Your task to perform on an android device: Clear the shopping cart on walmart.com. Image 0: 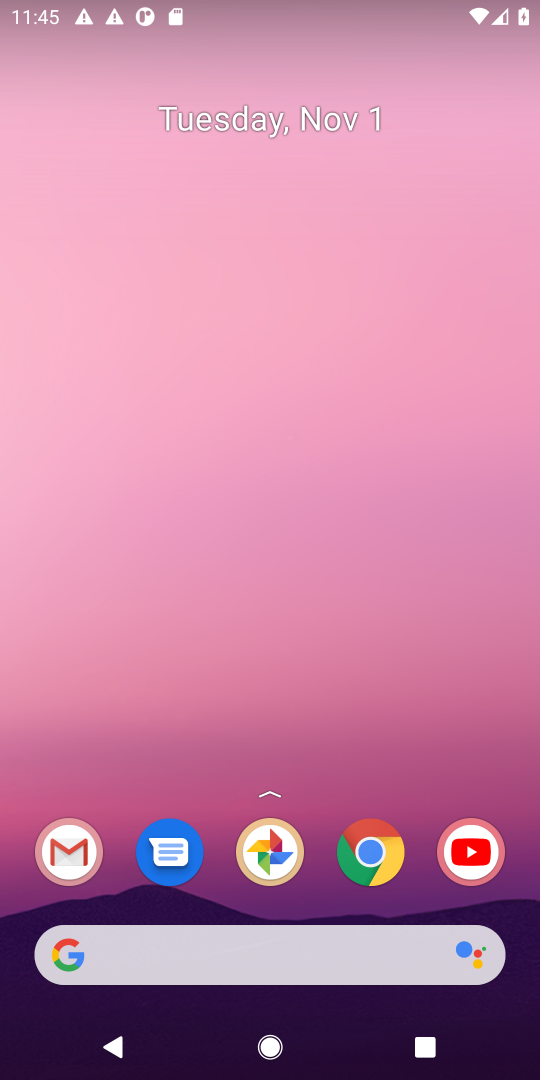
Step 0: click (60, 951)
Your task to perform on an android device: Clear the shopping cart on walmart.com. Image 1: 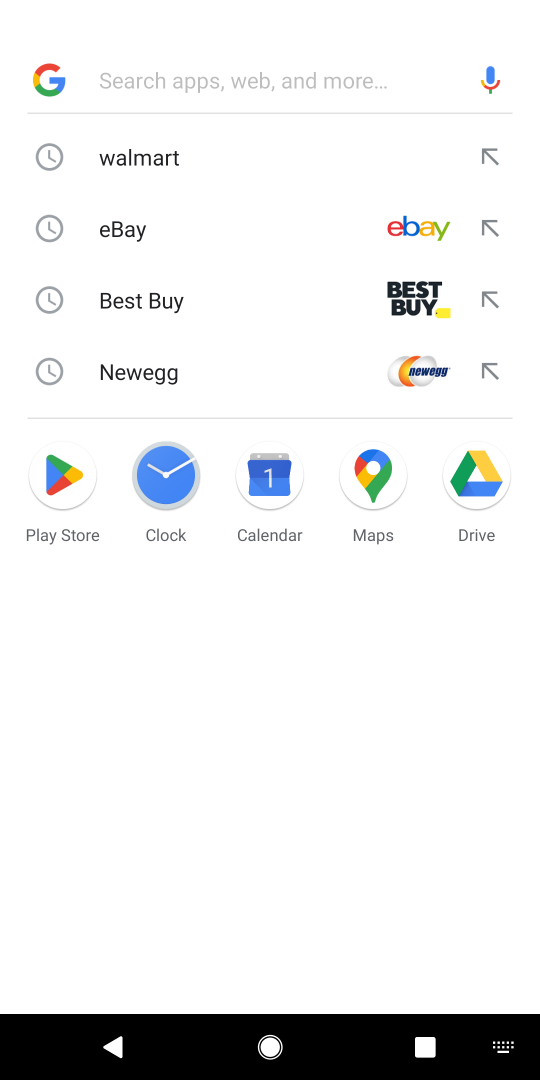
Step 1: click (148, 156)
Your task to perform on an android device: Clear the shopping cart on walmart.com. Image 2: 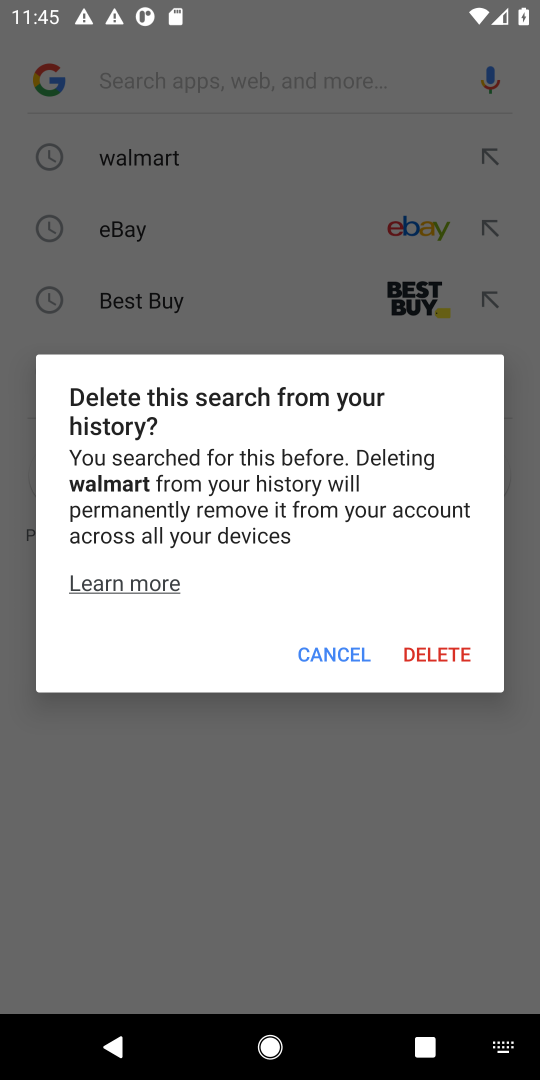
Step 2: click (314, 655)
Your task to perform on an android device: Clear the shopping cart on walmart.com. Image 3: 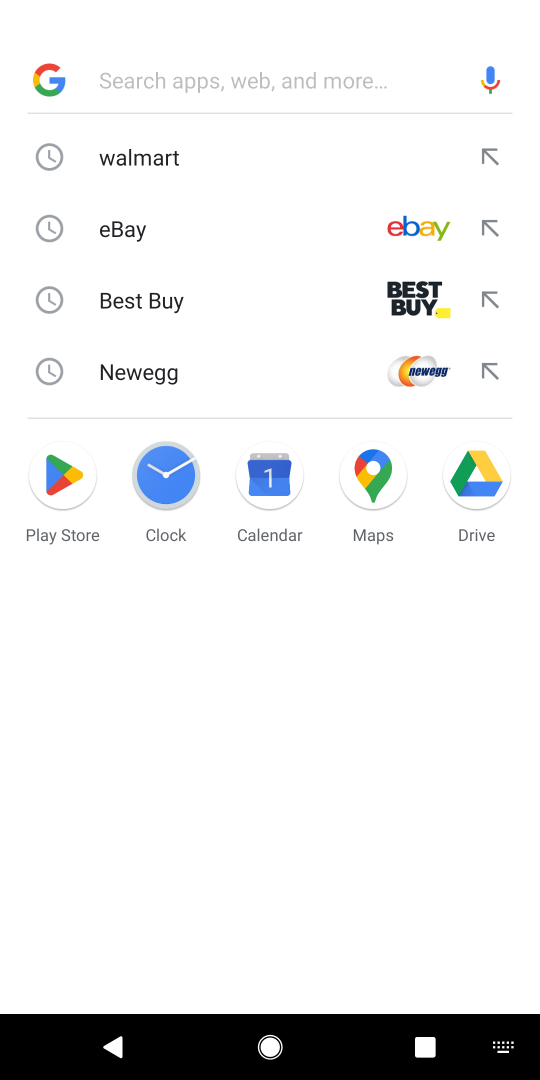
Step 3: click (143, 158)
Your task to perform on an android device: Clear the shopping cart on walmart.com. Image 4: 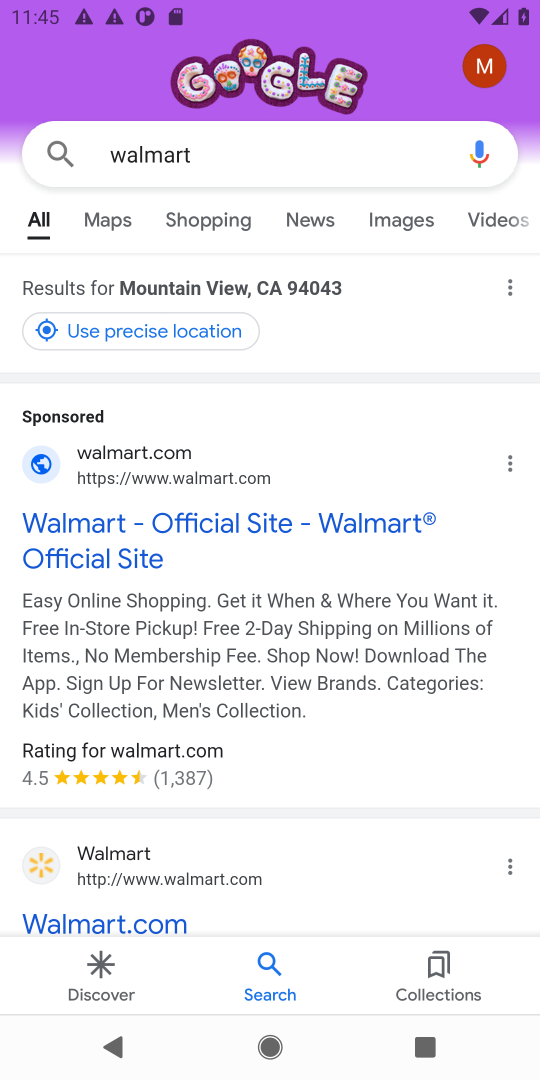
Step 4: click (136, 924)
Your task to perform on an android device: Clear the shopping cart on walmart.com. Image 5: 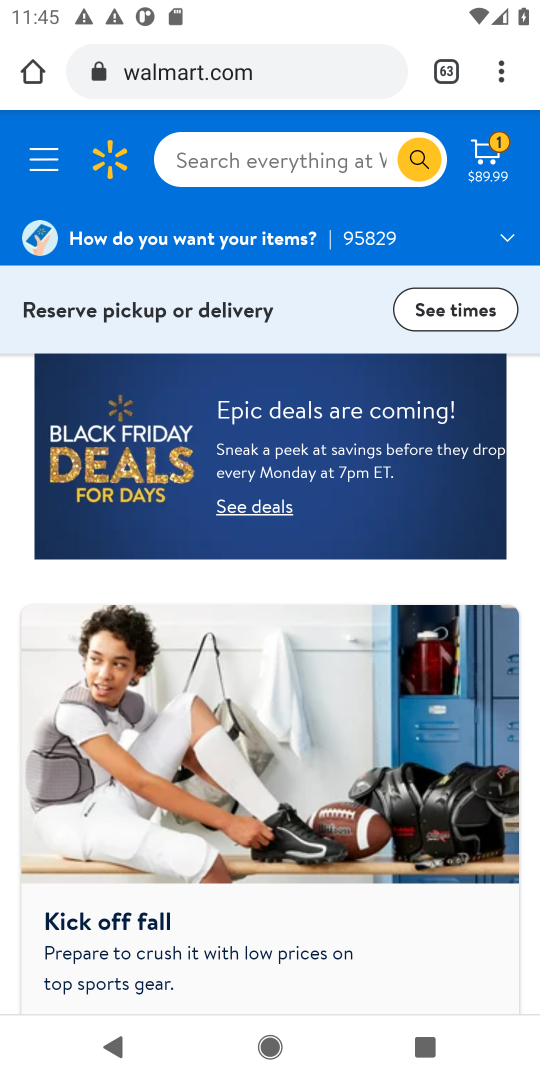
Step 5: drag from (380, 974) to (366, 228)
Your task to perform on an android device: Clear the shopping cart on walmart.com. Image 6: 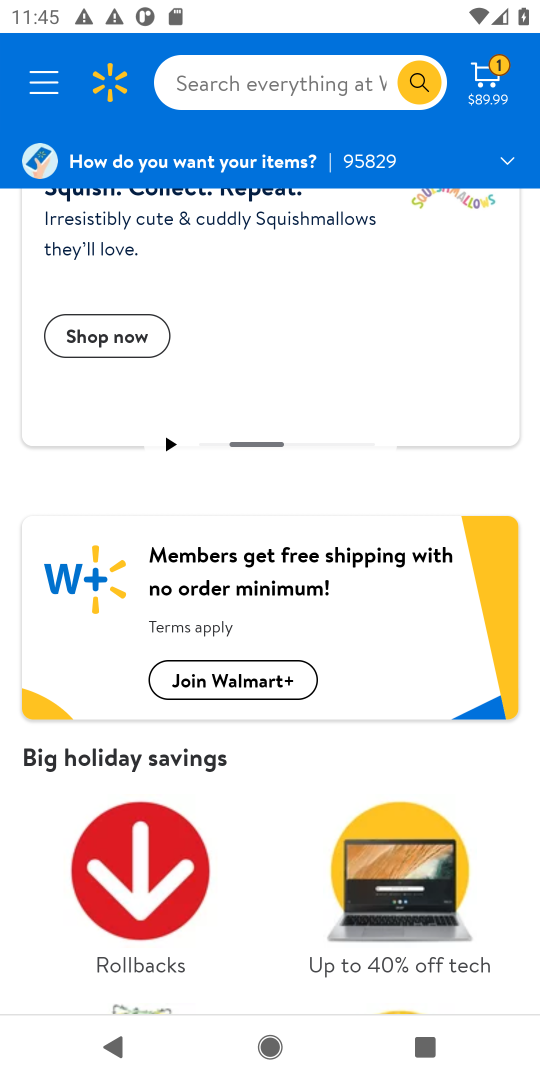
Step 6: drag from (310, 770) to (256, 402)
Your task to perform on an android device: Clear the shopping cart on walmart.com. Image 7: 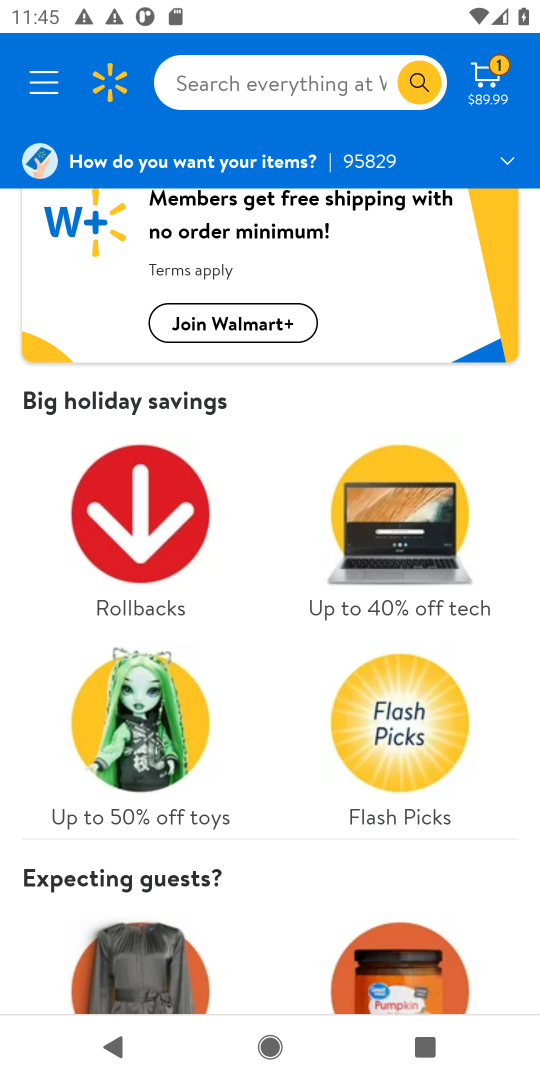
Step 7: click (483, 70)
Your task to perform on an android device: Clear the shopping cart on walmart.com. Image 8: 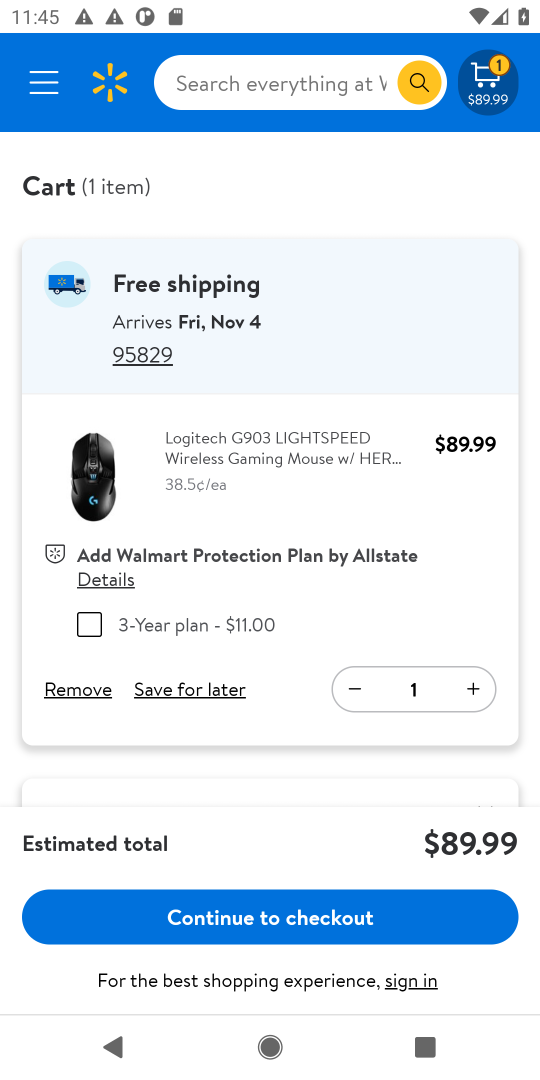
Step 8: click (71, 697)
Your task to perform on an android device: Clear the shopping cart on walmart.com. Image 9: 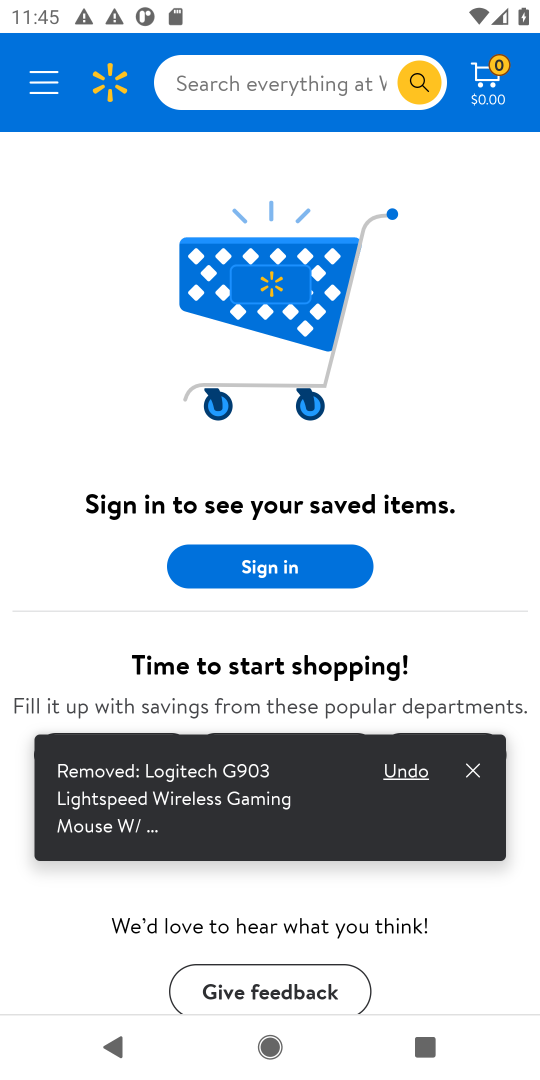
Step 9: task complete